Your task to perform on an android device: open app "DoorDash - Dasher" Image 0: 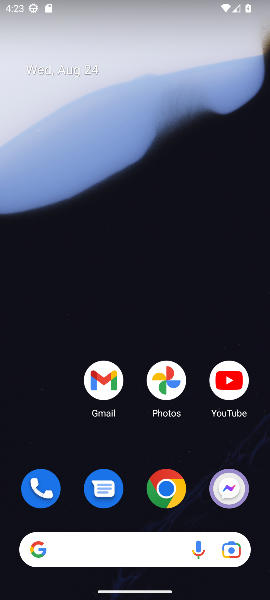
Step 0: drag from (132, 513) to (133, 67)
Your task to perform on an android device: open app "DoorDash - Dasher" Image 1: 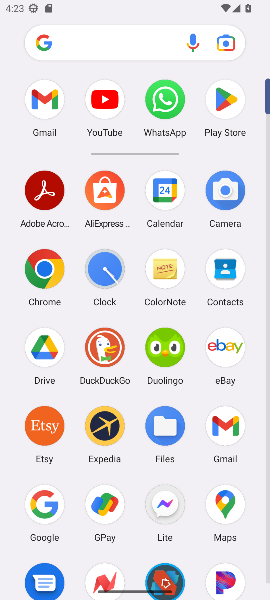
Step 1: click (209, 90)
Your task to perform on an android device: open app "DoorDash - Dasher" Image 2: 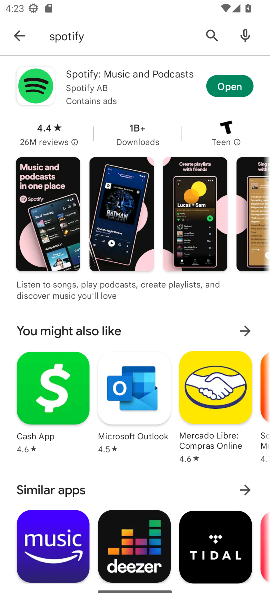
Step 2: click (212, 31)
Your task to perform on an android device: open app "DoorDash - Dasher" Image 3: 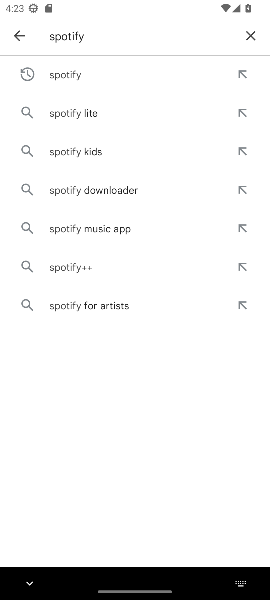
Step 3: click (246, 31)
Your task to perform on an android device: open app "DoorDash - Dasher" Image 4: 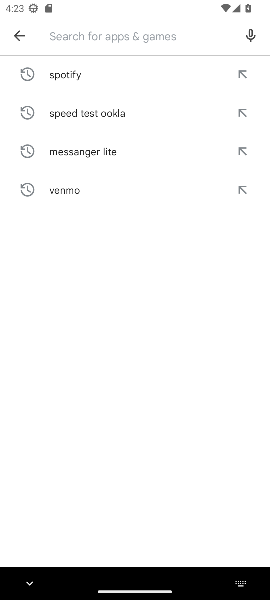
Step 4: type "doordash"
Your task to perform on an android device: open app "DoorDash - Dasher" Image 5: 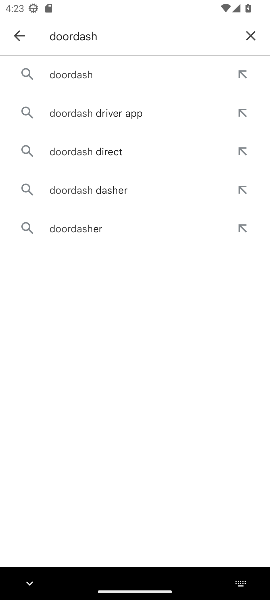
Step 5: click (75, 57)
Your task to perform on an android device: open app "DoorDash - Dasher" Image 6: 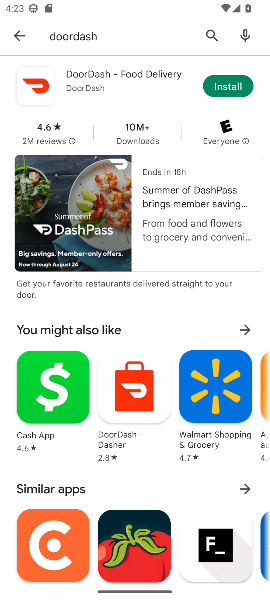
Step 6: click (219, 92)
Your task to perform on an android device: open app "DoorDash - Dasher" Image 7: 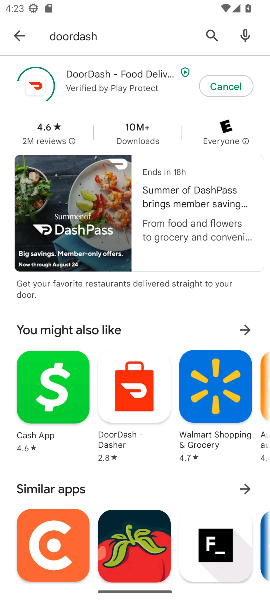
Step 7: task complete